Your task to perform on an android device: Go to Wikipedia Image 0: 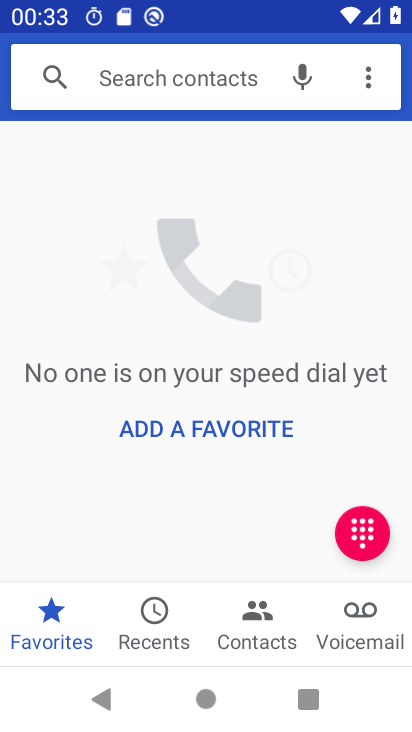
Step 0: press home button
Your task to perform on an android device: Go to Wikipedia Image 1: 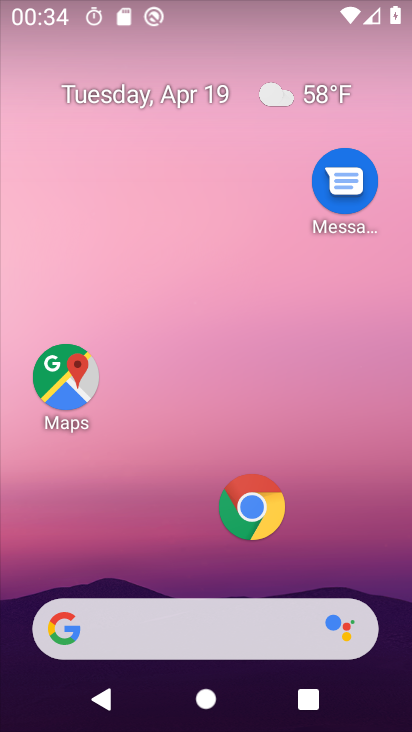
Step 1: click (236, 530)
Your task to perform on an android device: Go to Wikipedia Image 2: 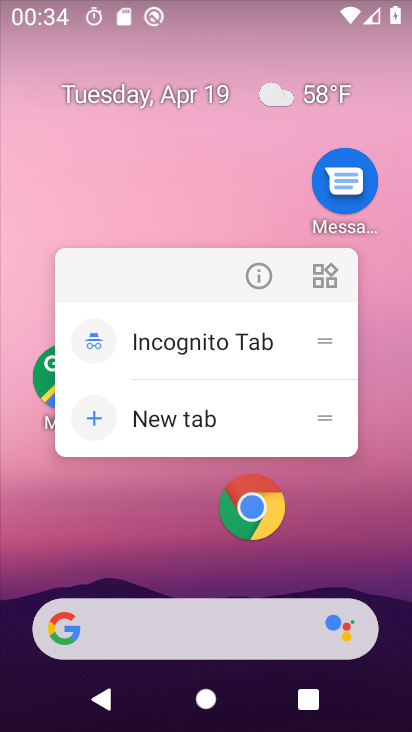
Step 2: click (261, 507)
Your task to perform on an android device: Go to Wikipedia Image 3: 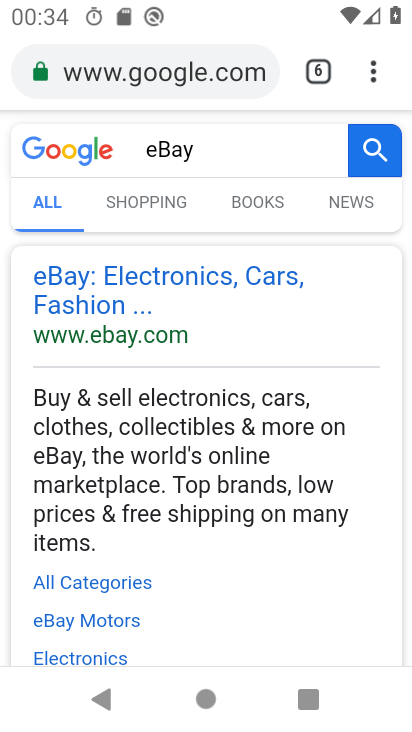
Step 3: click (183, 82)
Your task to perform on an android device: Go to Wikipedia Image 4: 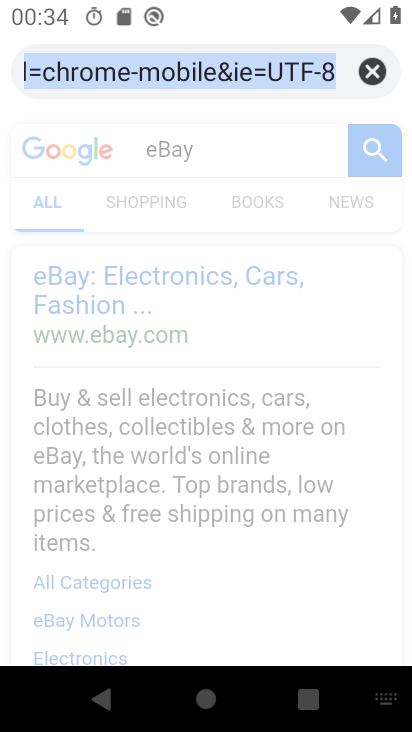
Step 4: type "wikipedia.org"
Your task to perform on an android device: Go to Wikipedia Image 5: 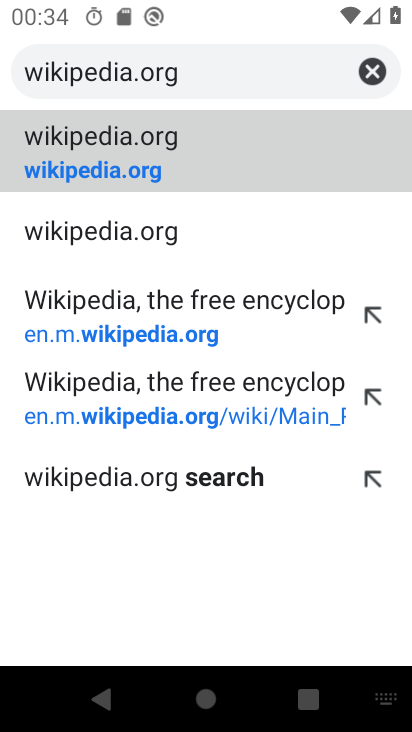
Step 5: click (129, 156)
Your task to perform on an android device: Go to Wikipedia Image 6: 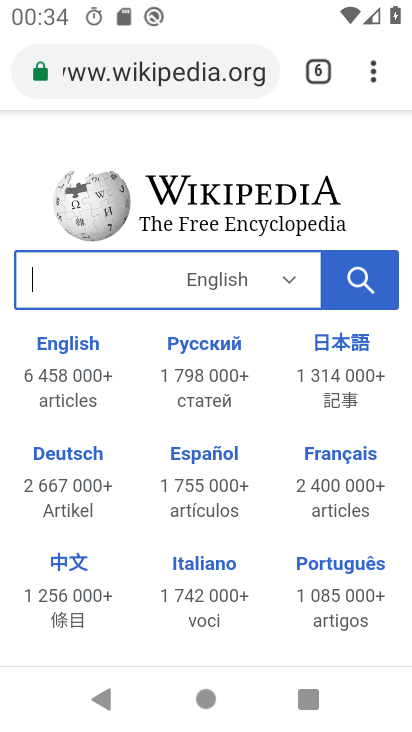
Step 6: task complete